Your task to perform on an android device: Open the map Image 0: 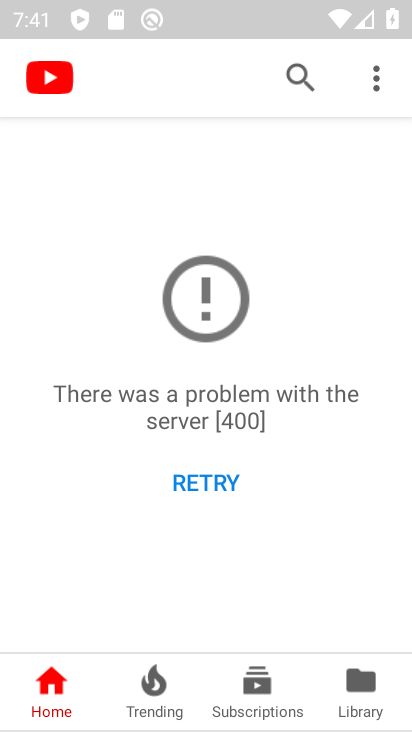
Step 0: press home button
Your task to perform on an android device: Open the map Image 1: 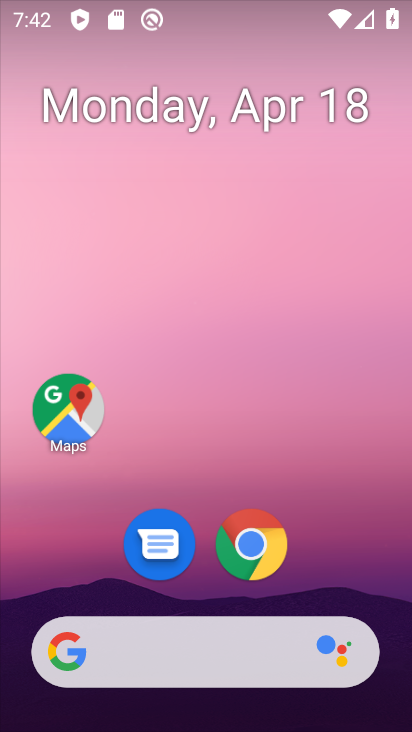
Step 1: click (64, 408)
Your task to perform on an android device: Open the map Image 2: 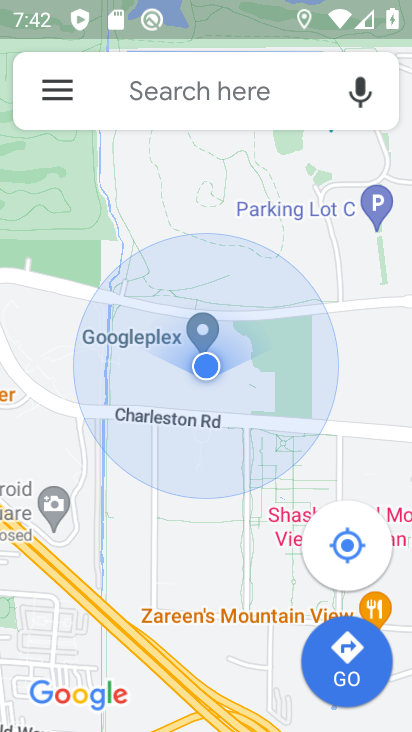
Step 2: task complete